Your task to perform on an android device: set the timer Image 0: 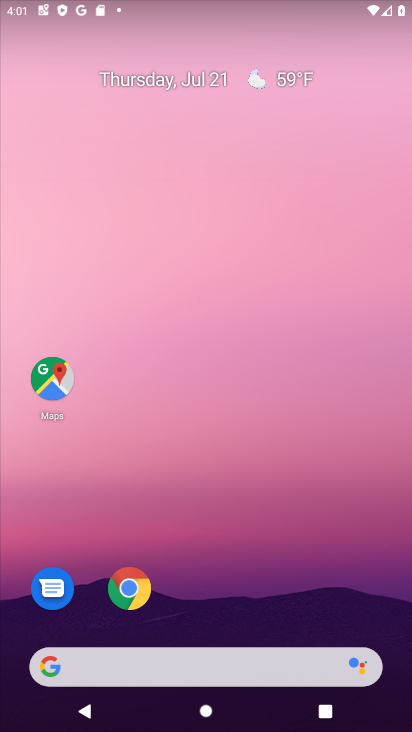
Step 0: drag from (236, 709) to (215, 110)
Your task to perform on an android device: set the timer Image 1: 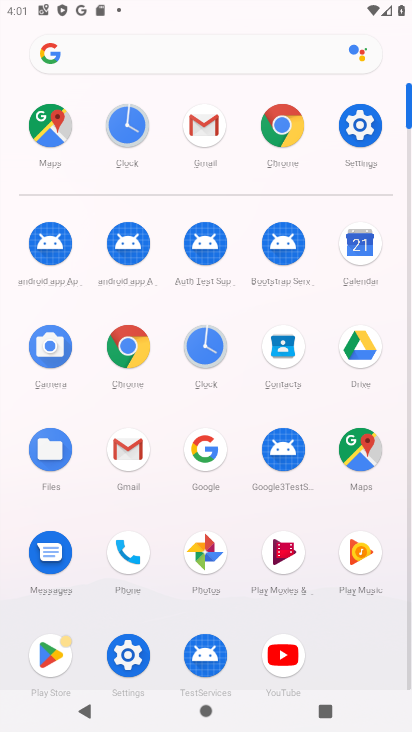
Step 1: click (206, 352)
Your task to perform on an android device: set the timer Image 2: 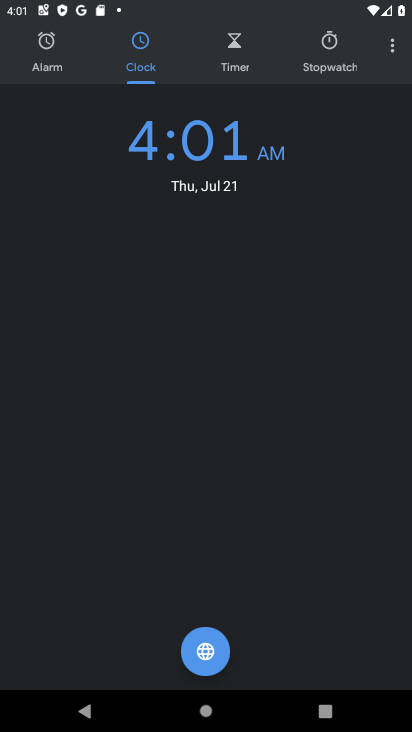
Step 2: click (239, 48)
Your task to perform on an android device: set the timer Image 3: 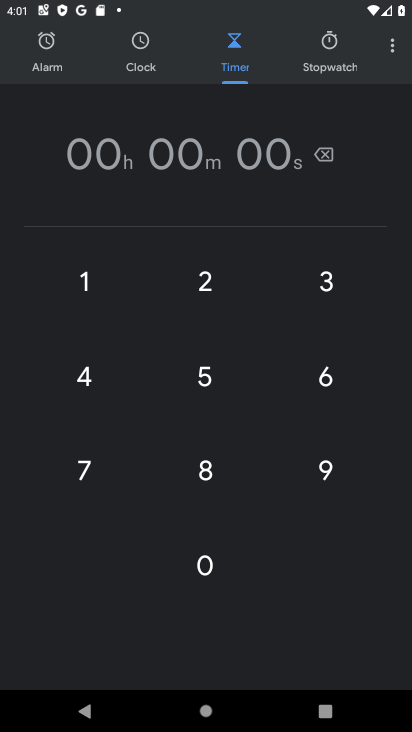
Step 3: click (200, 280)
Your task to perform on an android device: set the timer Image 4: 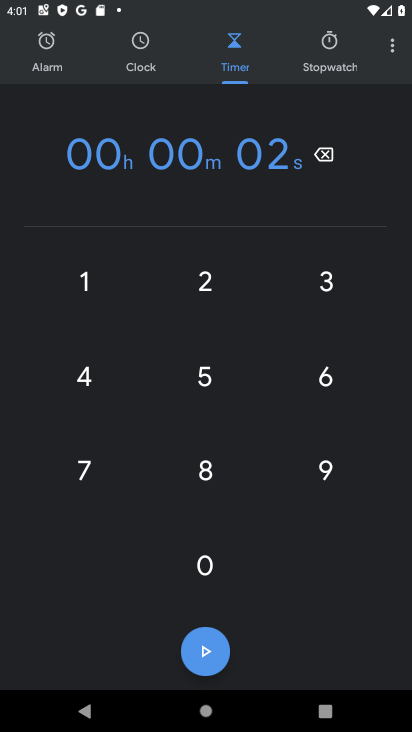
Step 4: click (80, 382)
Your task to perform on an android device: set the timer Image 5: 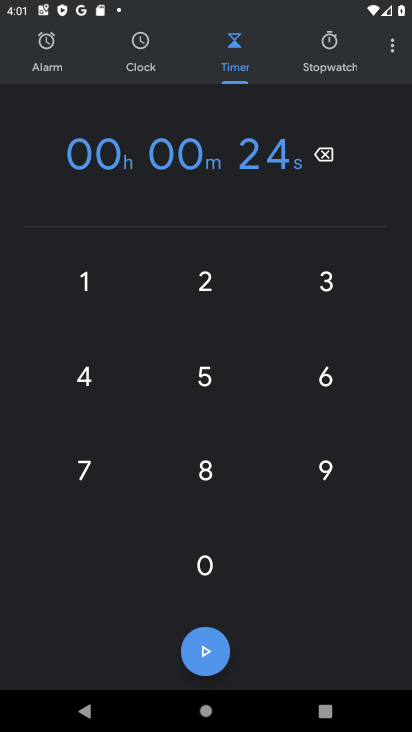
Step 5: click (207, 651)
Your task to perform on an android device: set the timer Image 6: 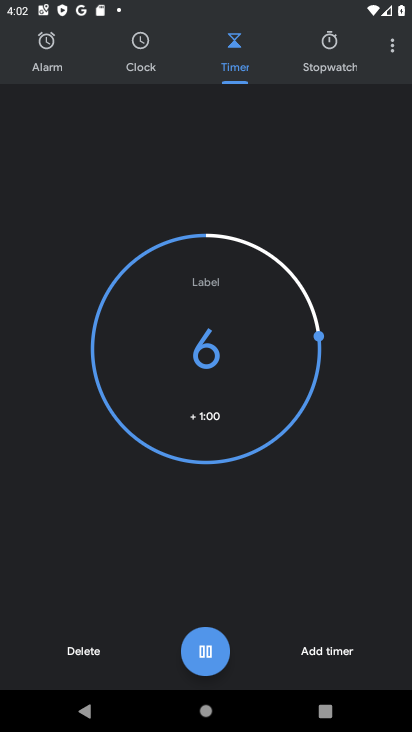
Step 6: task complete